Your task to perform on an android device: Open location settings Image 0: 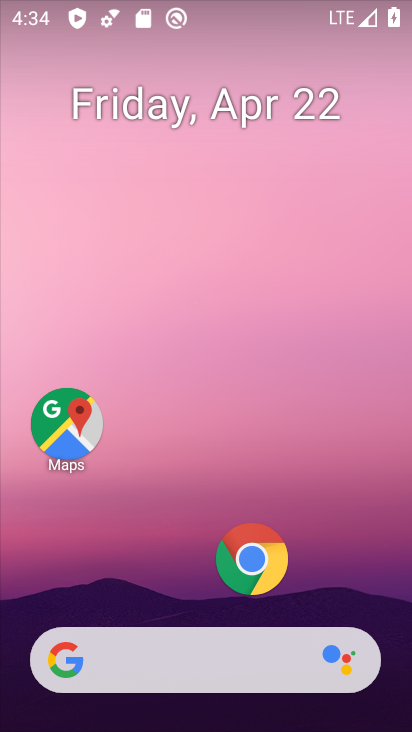
Step 0: drag from (155, 598) to (257, 4)
Your task to perform on an android device: Open location settings Image 1: 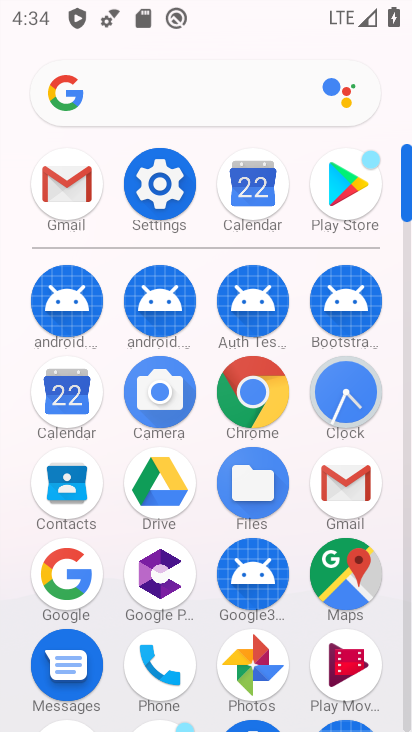
Step 1: click (152, 194)
Your task to perform on an android device: Open location settings Image 2: 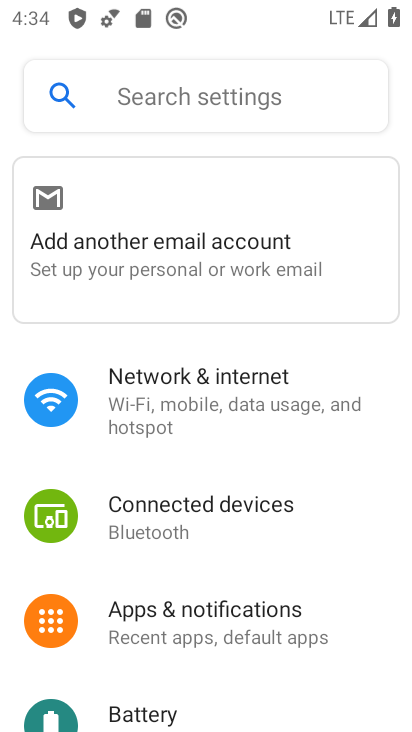
Step 2: drag from (137, 502) to (294, 40)
Your task to perform on an android device: Open location settings Image 3: 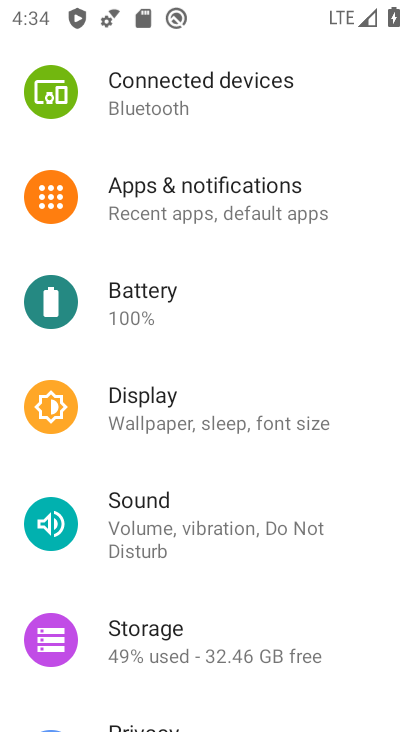
Step 3: drag from (191, 593) to (225, 234)
Your task to perform on an android device: Open location settings Image 4: 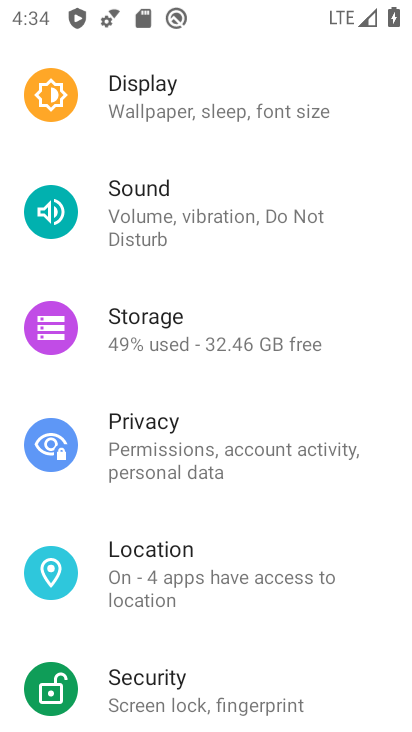
Step 4: click (159, 570)
Your task to perform on an android device: Open location settings Image 5: 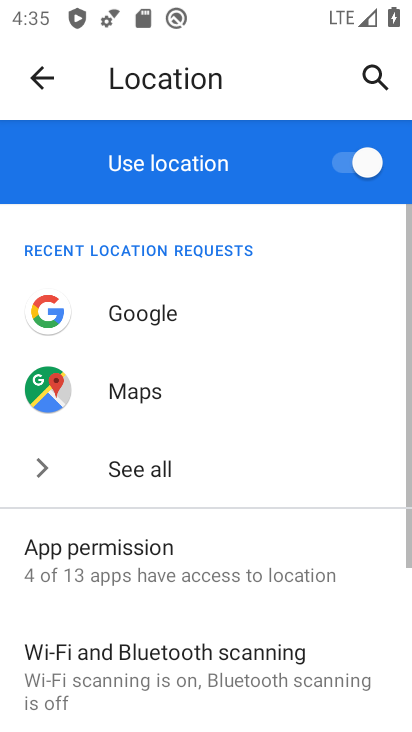
Step 5: task complete